Your task to perform on an android device: toggle javascript in the chrome app Image 0: 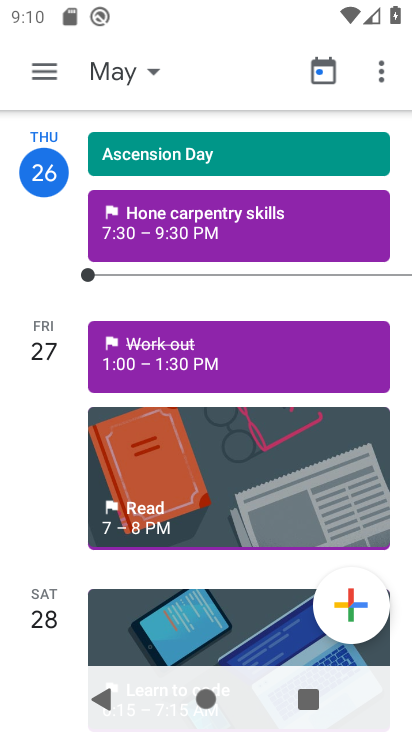
Step 0: press home button
Your task to perform on an android device: toggle javascript in the chrome app Image 1: 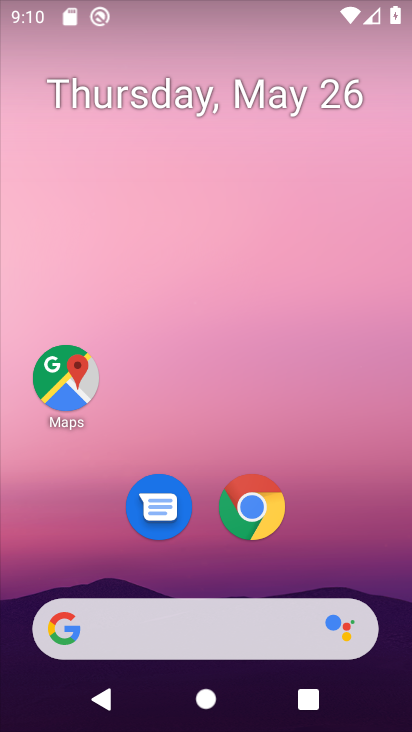
Step 1: drag from (383, 535) to (382, 223)
Your task to perform on an android device: toggle javascript in the chrome app Image 2: 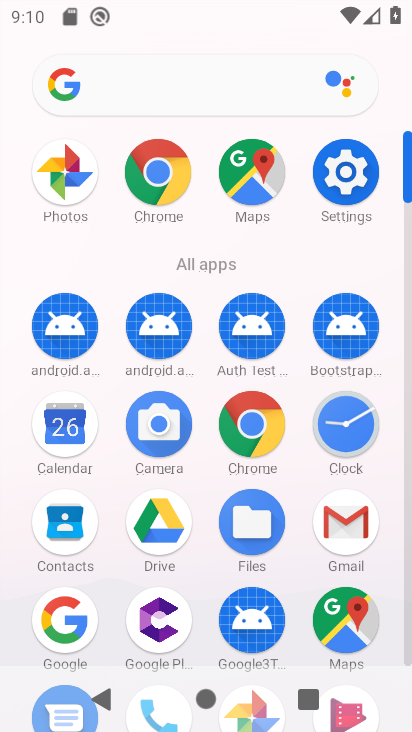
Step 2: click (273, 427)
Your task to perform on an android device: toggle javascript in the chrome app Image 3: 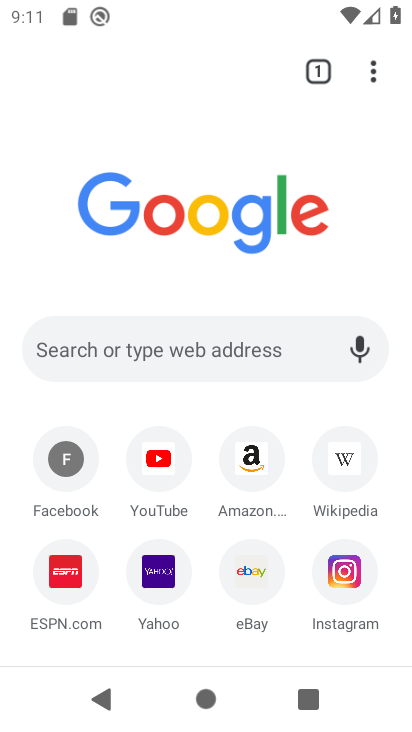
Step 3: click (372, 84)
Your task to perform on an android device: toggle javascript in the chrome app Image 4: 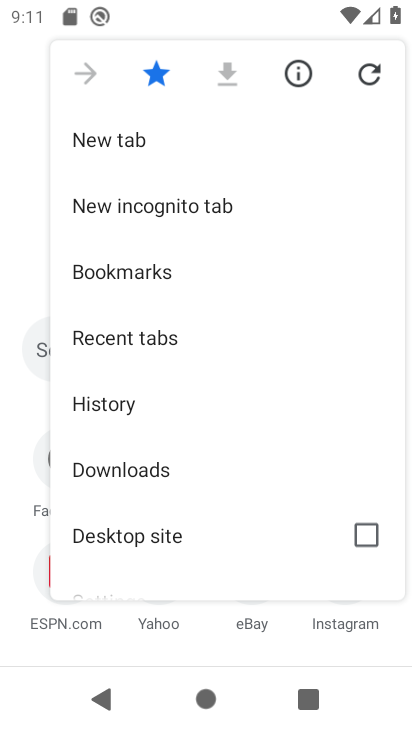
Step 4: drag from (287, 509) to (314, 313)
Your task to perform on an android device: toggle javascript in the chrome app Image 5: 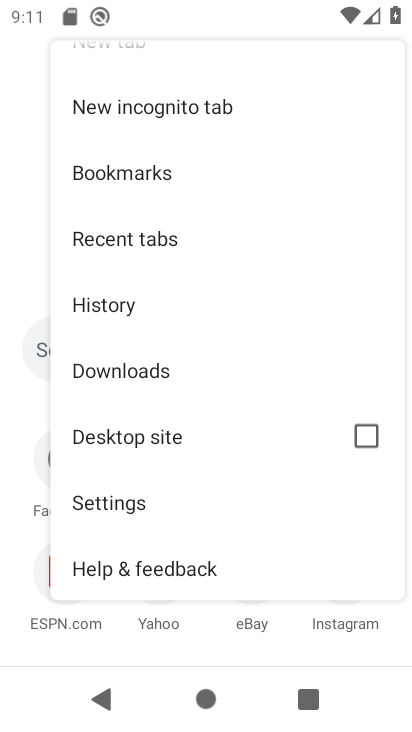
Step 5: drag from (300, 492) to (300, 337)
Your task to perform on an android device: toggle javascript in the chrome app Image 6: 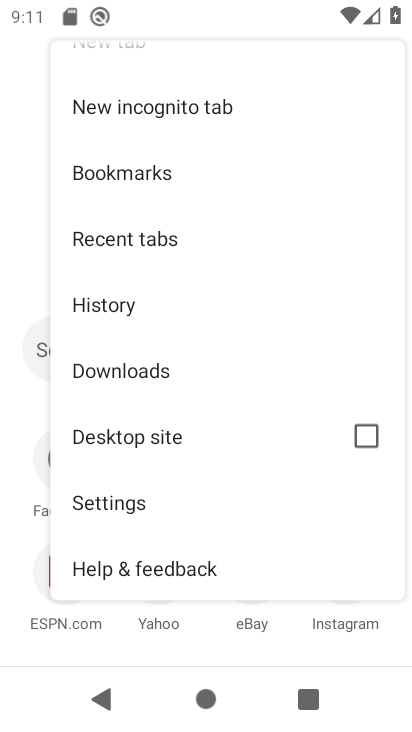
Step 6: click (140, 507)
Your task to perform on an android device: toggle javascript in the chrome app Image 7: 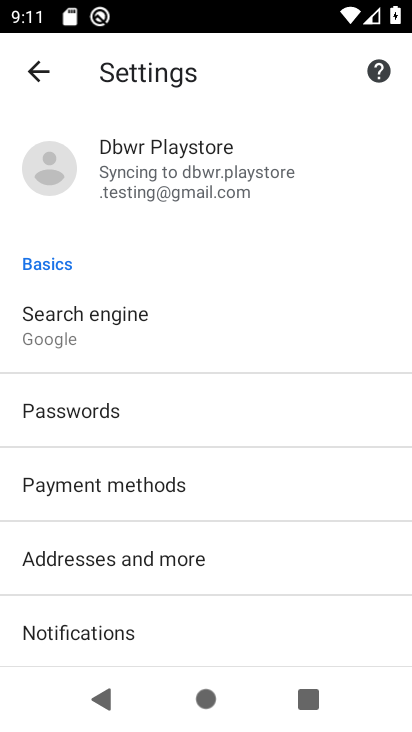
Step 7: drag from (294, 538) to (300, 416)
Your task to perform on an android device: toggle javascript in the chrome app Image 8: 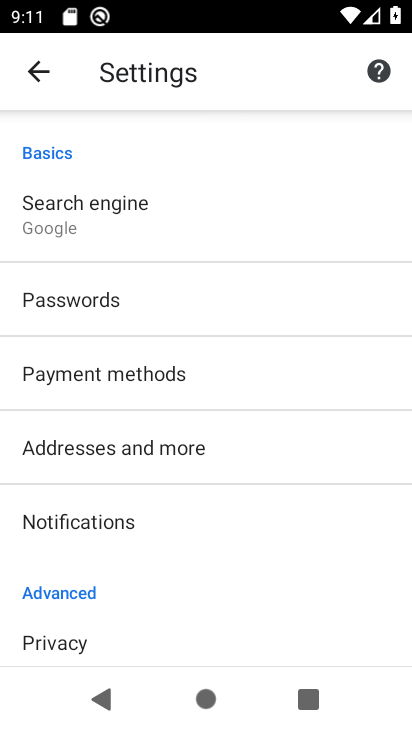
Step 8: drag from (352, 570) to (352, 412)
Your task to perform on an android device: toggle javascript in the chrome app Image 9: 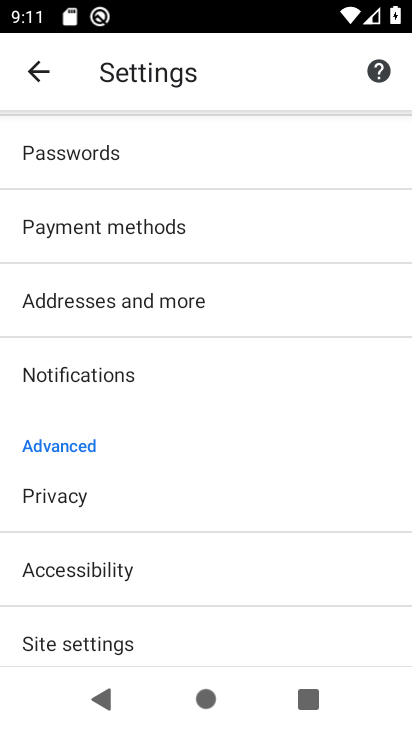
Step 9: drag from (365, 586) to (373, 437)
Your task to perform on an android device: toggle javascript in the chrome app Image 10: 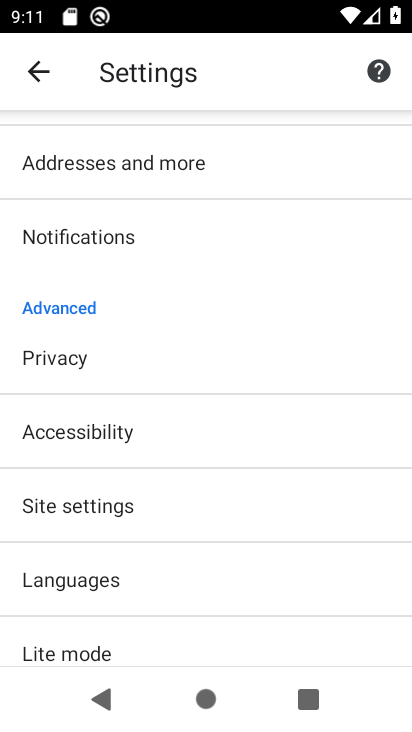
Step 10: drag from (320, 575) to (315, 460)
Your task to perform on an android device: toggle javascript in the chrome app Image 11: 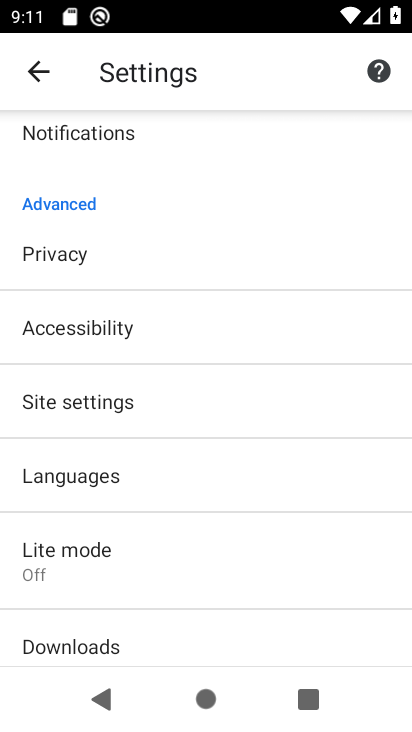
Step 11: drag from (297, 575) to (304, 457)
Your task to perform on an android device: toggle javascript in the chrome app Image 12: 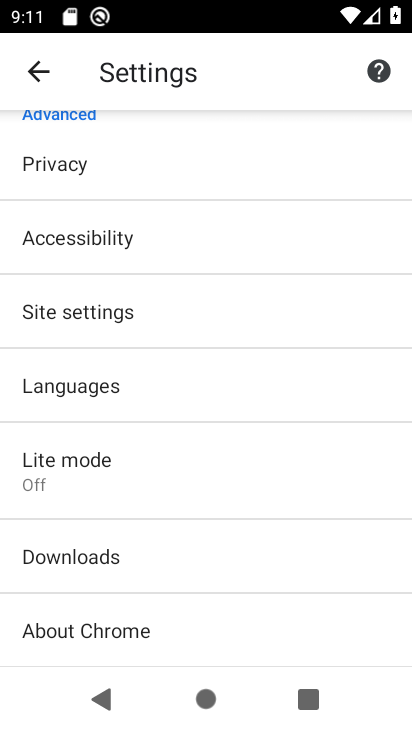
Step 12: click (275, 329)
Your task to perform on an android device: toggle javascript in the chrome app Image 13: 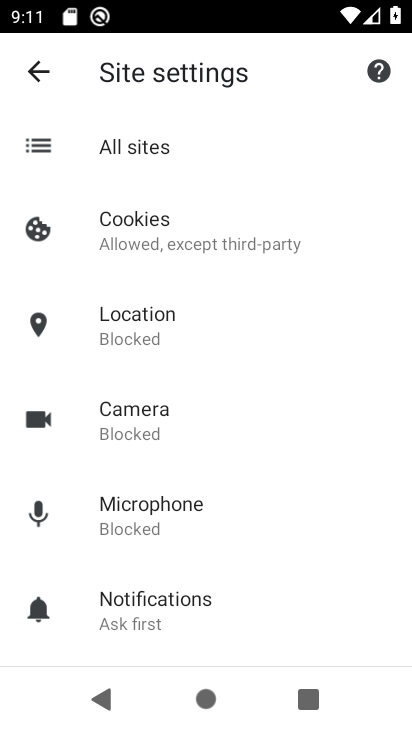
Step 13: drag from (272, 568) to (277, 470)
Your task to perform on an android device: toggle javascript in the chrome app Image 14: 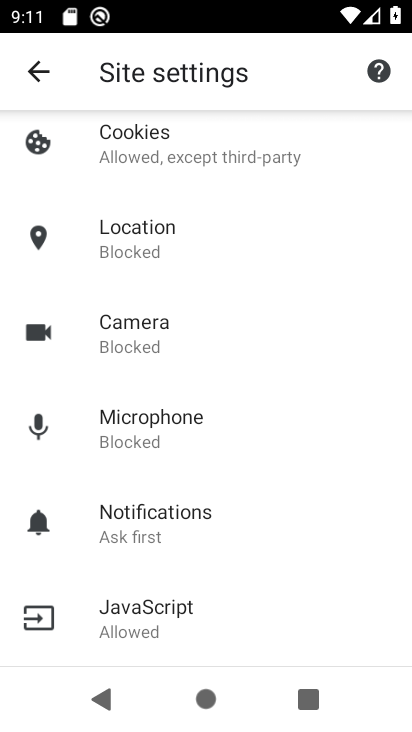
Step 14: drag from (289, 585) to (305, 431)
Your task to perform on an android device: toggle javascript in the chrome app Image 15: 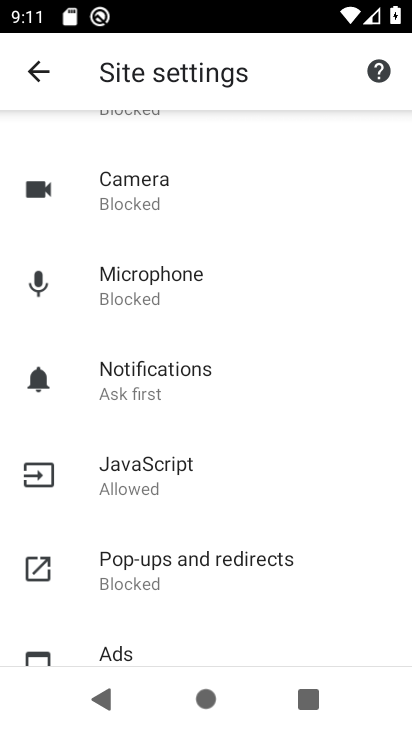
Step 15: click (220, 498)
Your task to perform on an android device: toggle javascript in the chrome app Image 16: 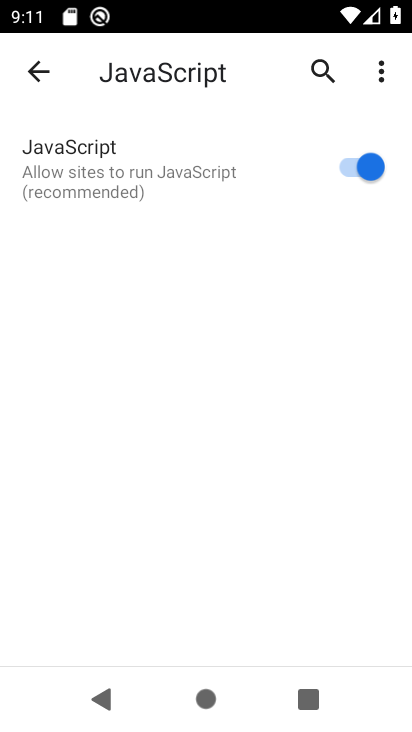
Step 16: click (368, 176)
Your task to perform on an android device: toggle javascript in the chrome app Image 17: 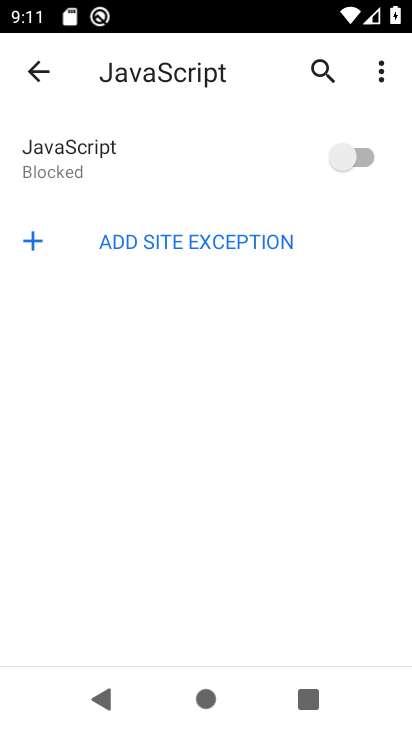
Step 17: task complete